Your task to perform on an android device: allow cookies in the chrome app Image 0: 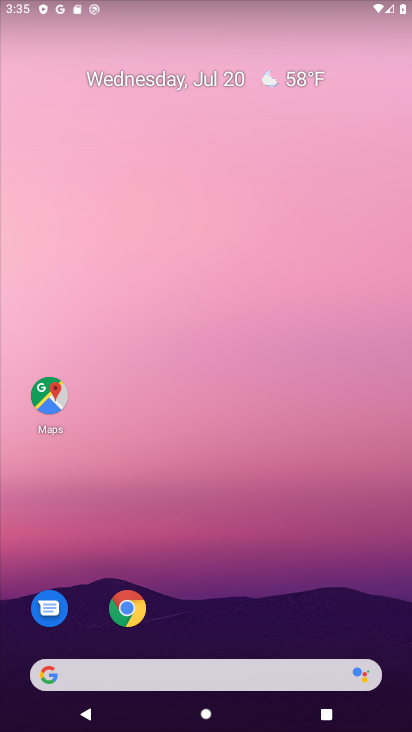
Step 0: drag from (217, 568) to (201, 268)
Your task to perform on an android device: allow cookies in the chrome app Image 1: 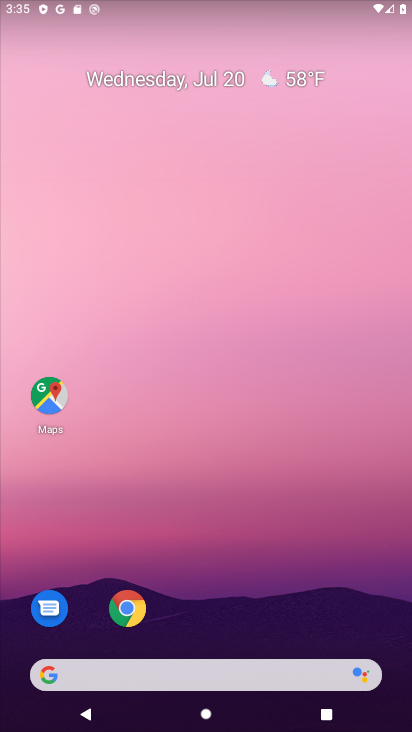
Step 1: drag from (294, 512) to (309, 146)
Your task to perform on an android device: allow cookies in the chrome app Image 2: 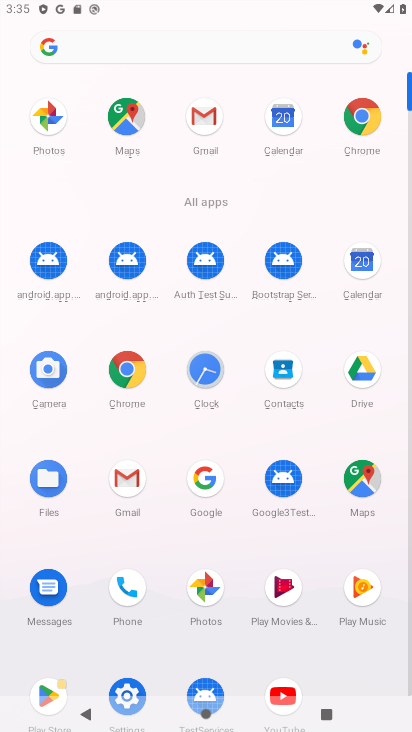
Step 2: drag from (355, 432) to (380, 185)
Your task to perform on an android device: allow cookies in the chrome app Image 3: 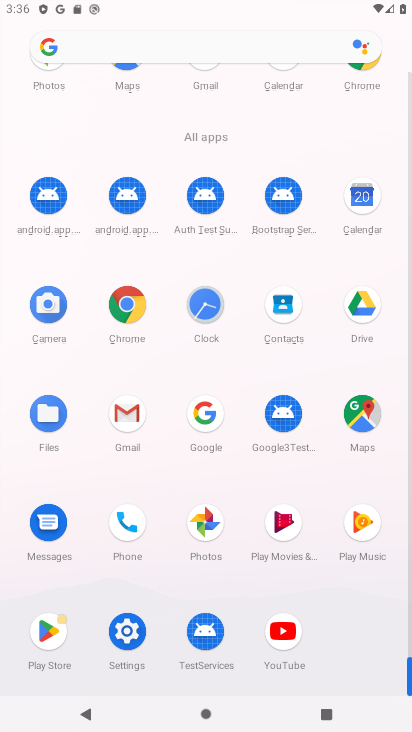
Step 3: drag from (294, 168) to (295, 432)
Your task to perform on an android device: allow cookies in the chrome app Image 4: 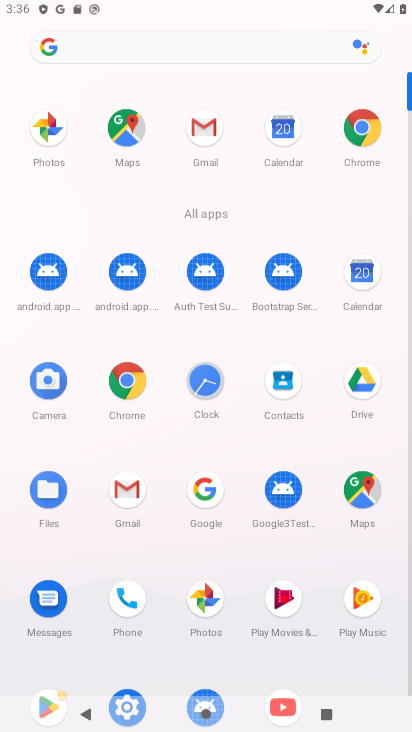
Step 4: drag from (285, 304) to (295, 448)
Your task to perform on an android device: allow cookies in the chrome app Image 5: 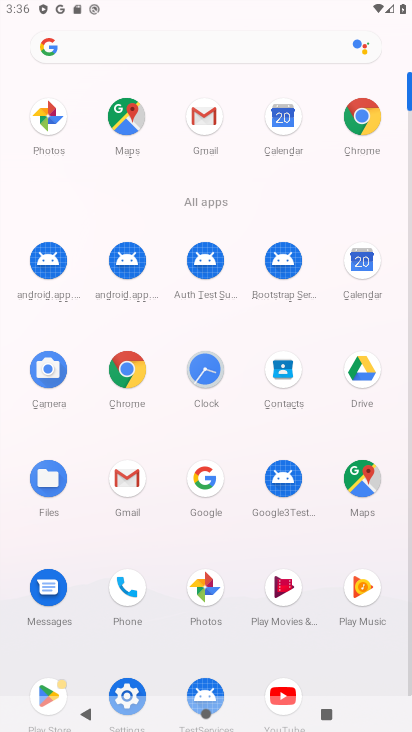
Step 5: drag from (353, 138) to (342, 309)
Your task to perform on an android device: allow cookies in the chrome app Image 6: 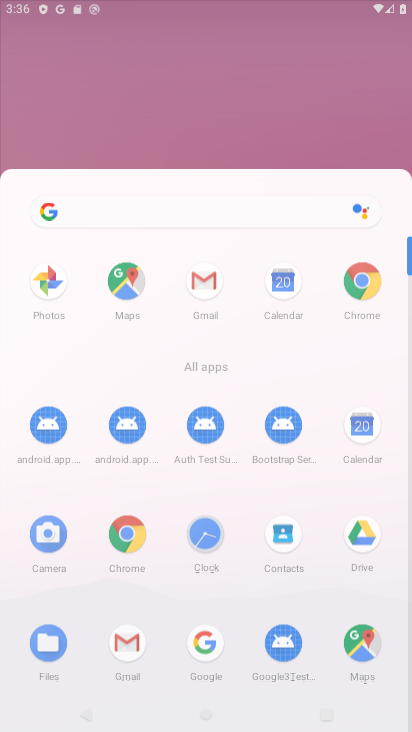
Step 6: click (319, 337)
Your task to perform on an android device: allow cookies in the chrome app Image 7: 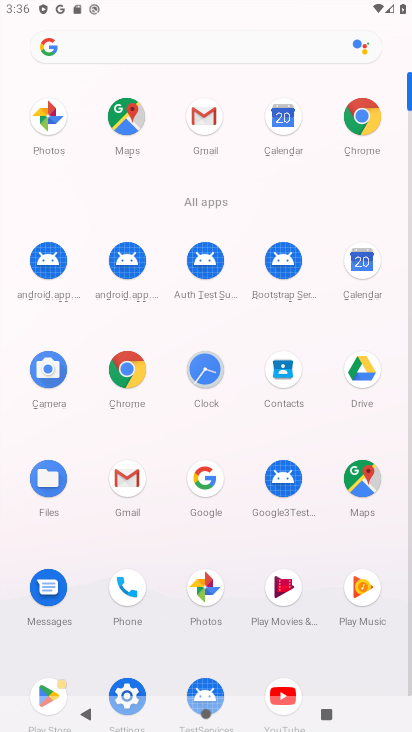
Step 7: click (373, 121)
Your task to perform on an android device: allow cookies in the chrome app Image 8: 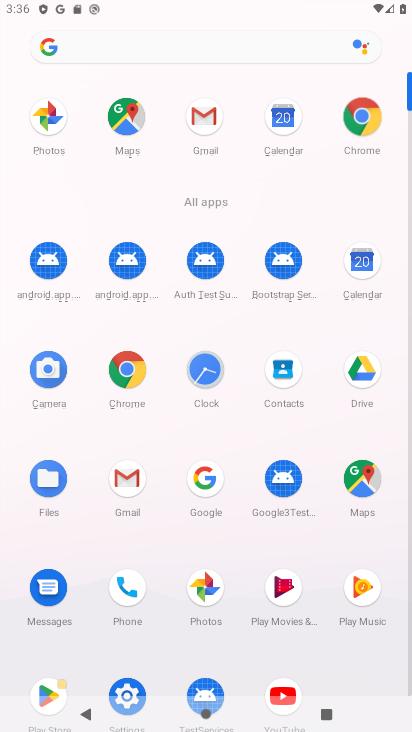
Step 8: click (370, 122)
Your task to perform on an android device: allow cookies in the chrome app Image 9: 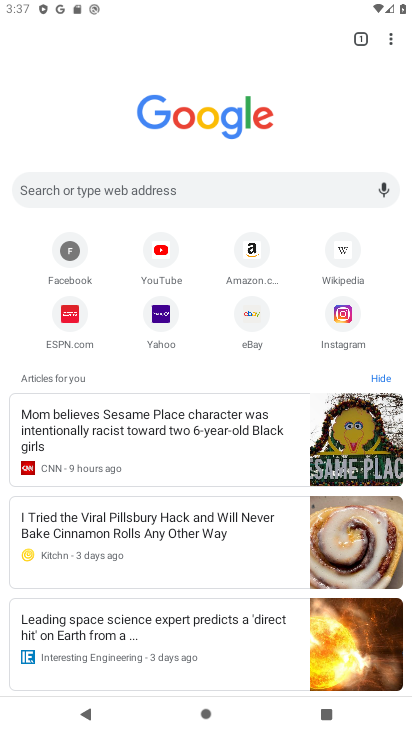
Step 9: click (395, 34)
Your task to perform on an android device: allow cookies in the chrome app Image 10: 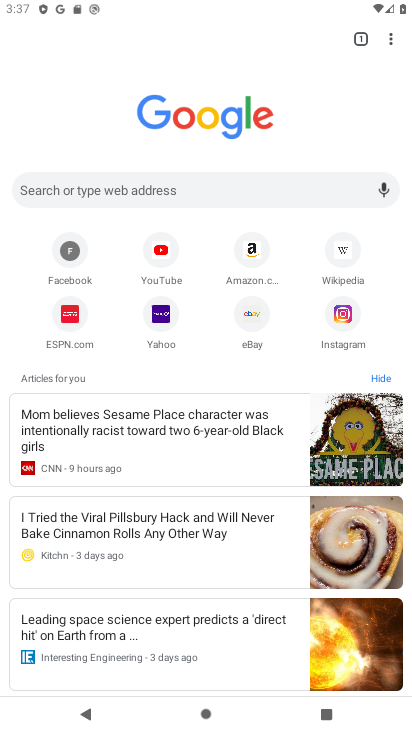
Step 10: click (392, 39)
Your task to perform on an android device: allow cookies in the chrome app Image 11: 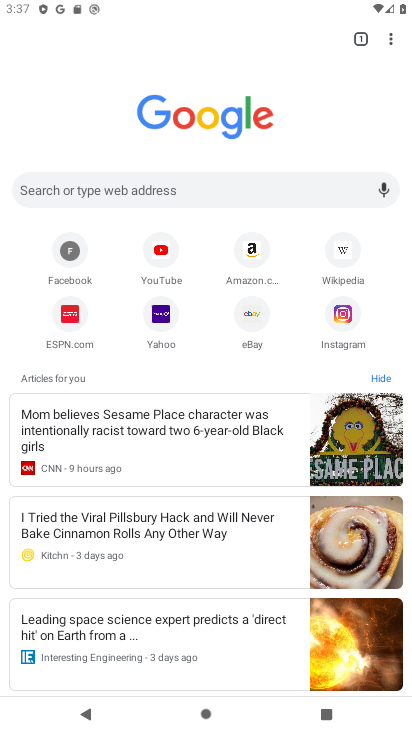
Step 11: click (393, 40)
Your task to perform on an android device: allow cookies in the chrome app Image 12: 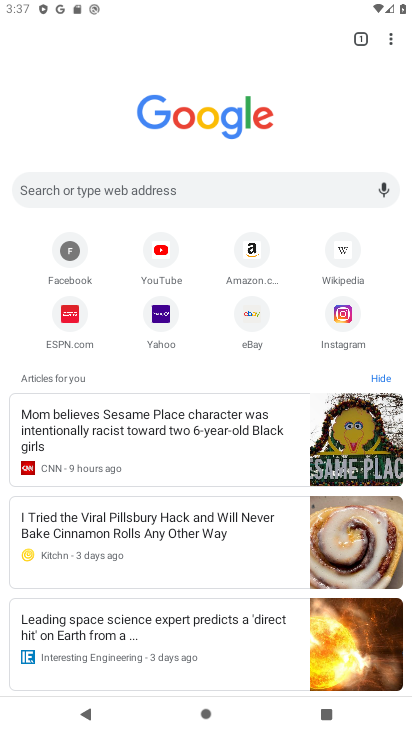
Step 12: drag from (392, 29) to (259, 319)
Your task to perform on an android device: allow cookies in the chrome app Image 13: 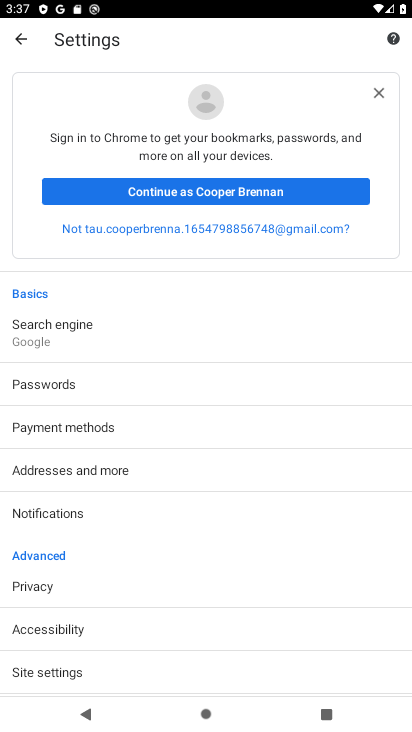
Step 13: drag from (74, 455) to (118, 110)
Your task to perform on an android device: allow cookies in the chrome app Image 14: 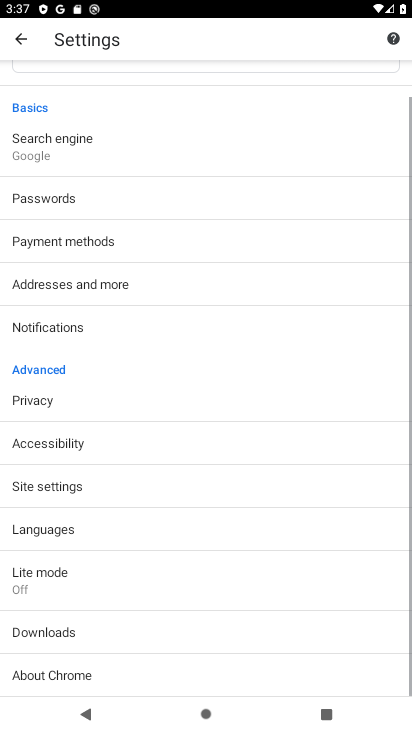
Step 14: drag from (79, 496) to (79, 272)
Your task to perform on an android device: allow cookies in the chrome app Image 15: 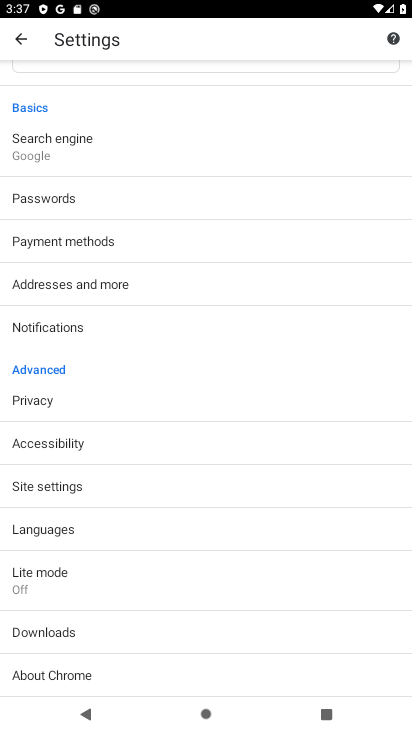
Step 15: click (28, 399)
Your task to perform on an android device: allow cookies in the chrome app Image 16: 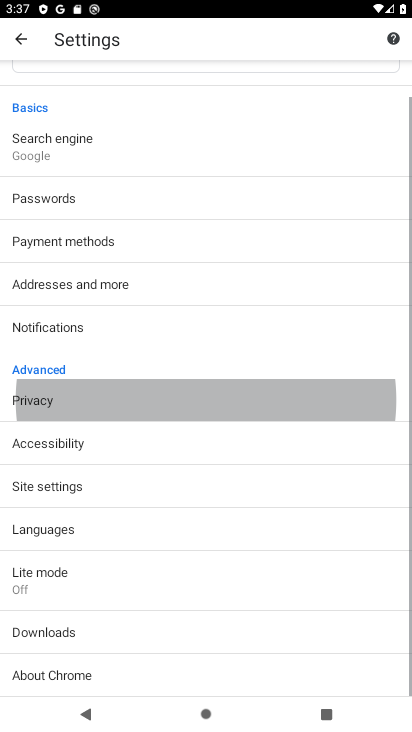
Step 16: click (28, 399)
Your task to perform on an android device: allow cookies in the chrome app Image 17: 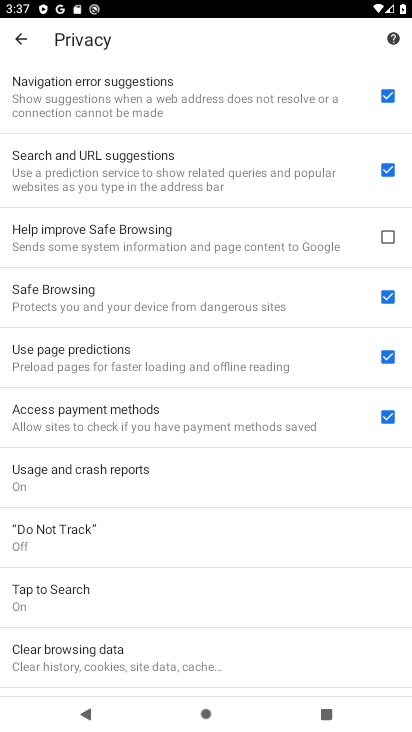
Step 17: task complete